Your task to perform on an android device: turn off location Image 0: 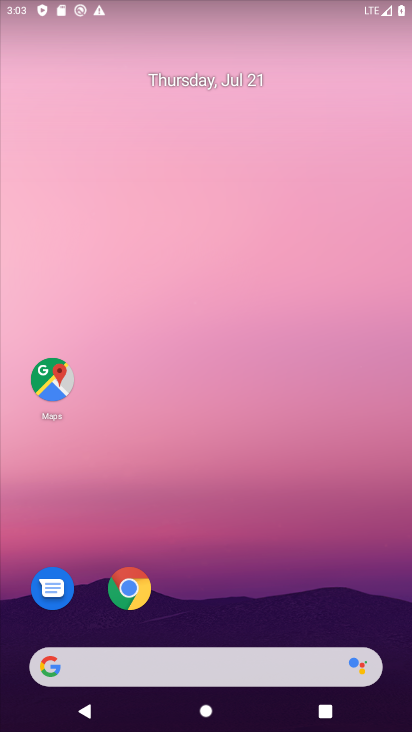
Step 0: drag from (298, 557) to (248, 204)
Your task to perform on an android device: turn off location Image 1: 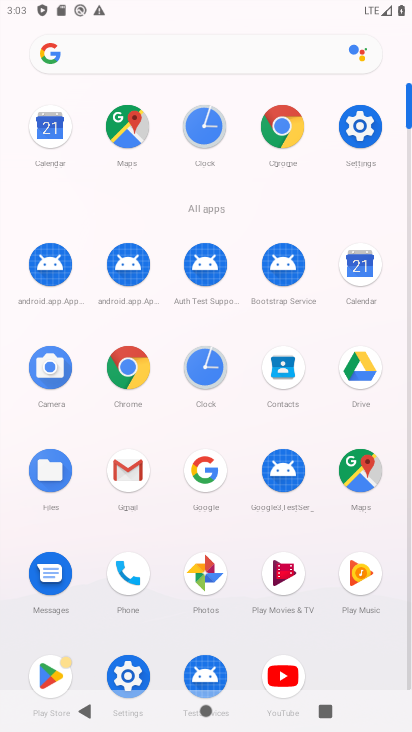
Step 1: click (120, 667)
Your task to perform on an android device: turn off location Image 2: 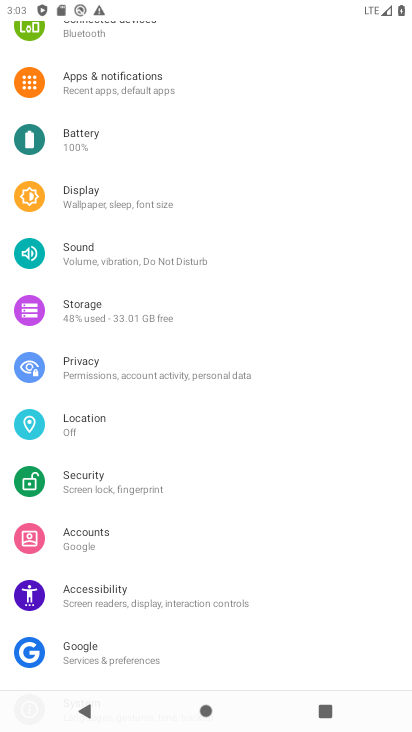
Step 2: click (113, 423)
Your task to perform on an android device: turn off location Image 3: 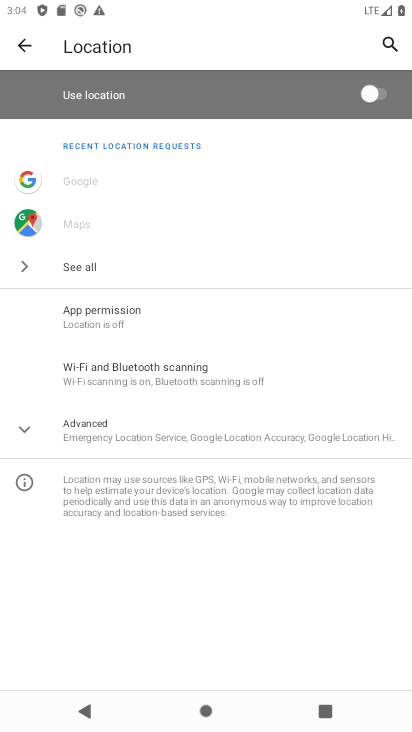
Step 3: task complete